Your task to perform on an android device: make emails show in primary in the gmail app Image 0: 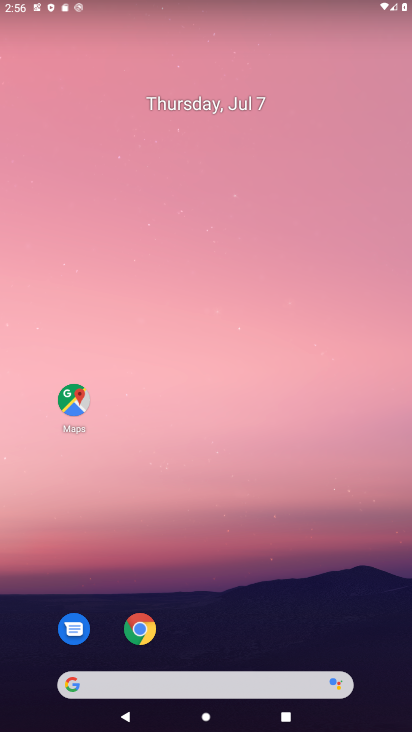
Step 0: drag from (201, 655) to (191, 67)
Your task to perform on an android device: make emails show in primary in the gmail app Image 1: 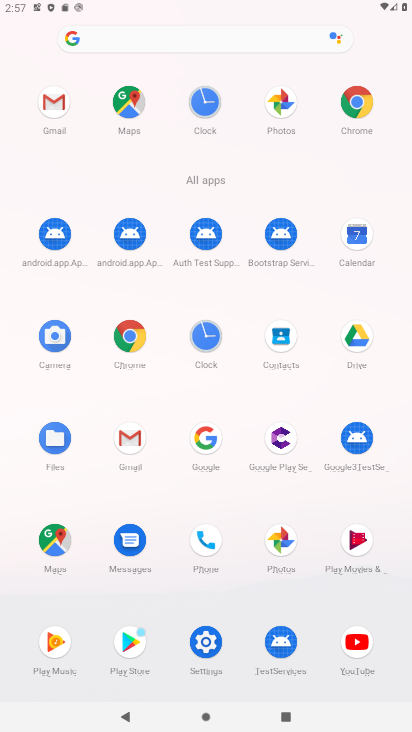
Step 1: click (51, 112)
Your task to perform on an android device: make emails show in primary in the gmail app Image 2: 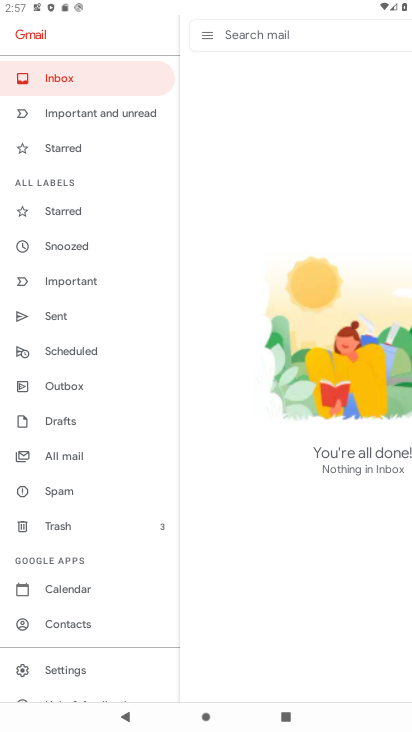
Step 2: click (62, 71)
Your task to perform on an android device: make emails show in primary in the gmail app Image 3: 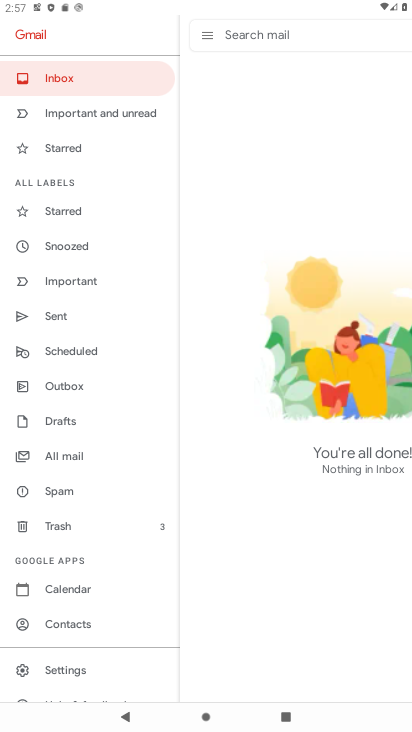
Step 3: task complete